Your task to perform on an android device: What is the recent news? Image 0: 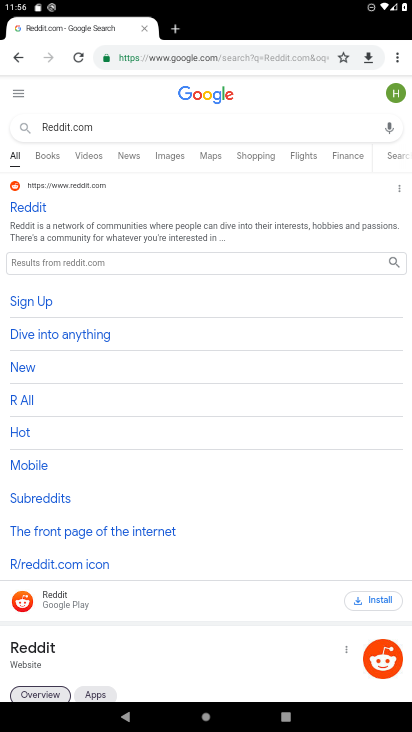
Step 0: press home button
Your task to perform on an android device: What is the recent news? Image 1: 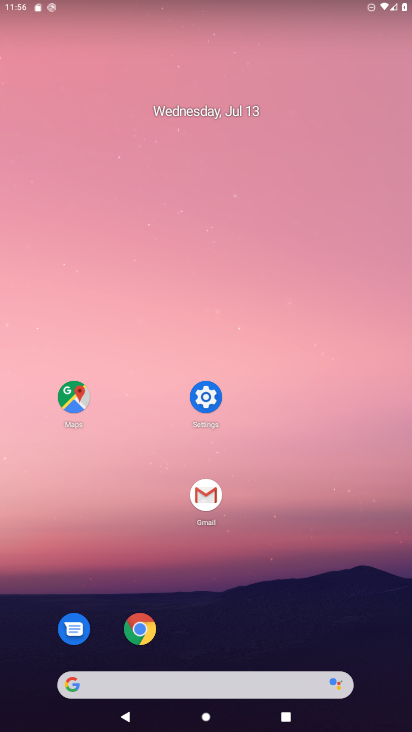
Step 1: task complete